Your task to perform on an android device: Go to Maps Image 0: 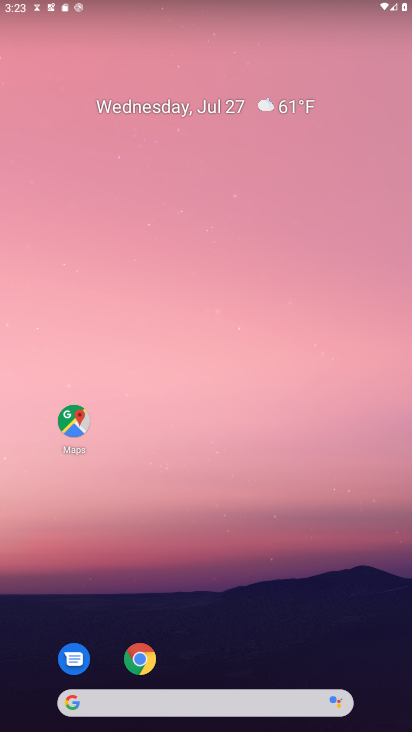
Step 0: click (75, 430)
Your task to perform on an android device: Go to Maps Image 1: 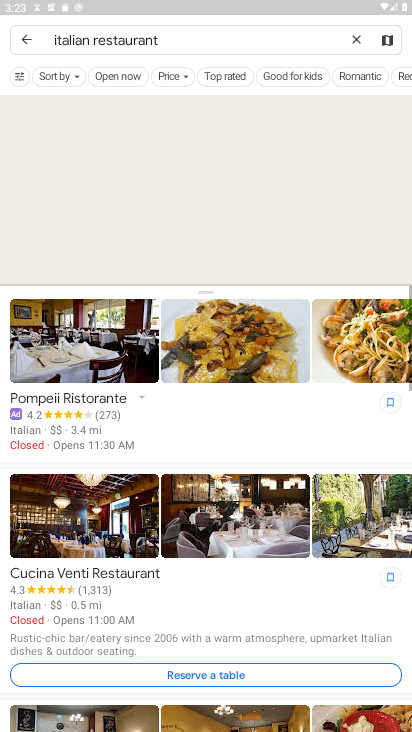
Step 1: task complete